Your task to perform on an android device: open app "TextNow: Call + Text Unlimited" (install if not already installed) Image 0: 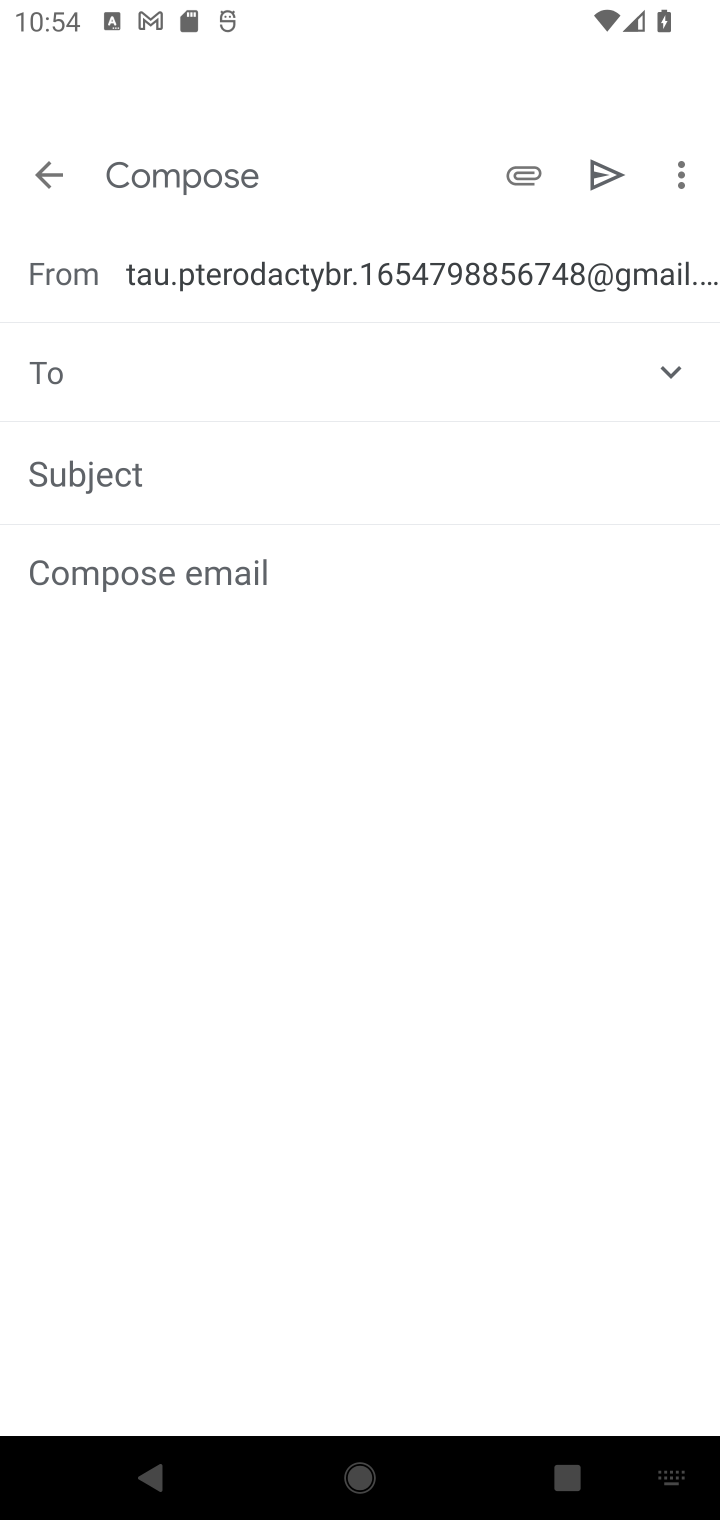
Step 0: press home button
Your task to perform on an android device: open app "TextNow: Call + Text Unlimited" (install if not already installed) Image 1: 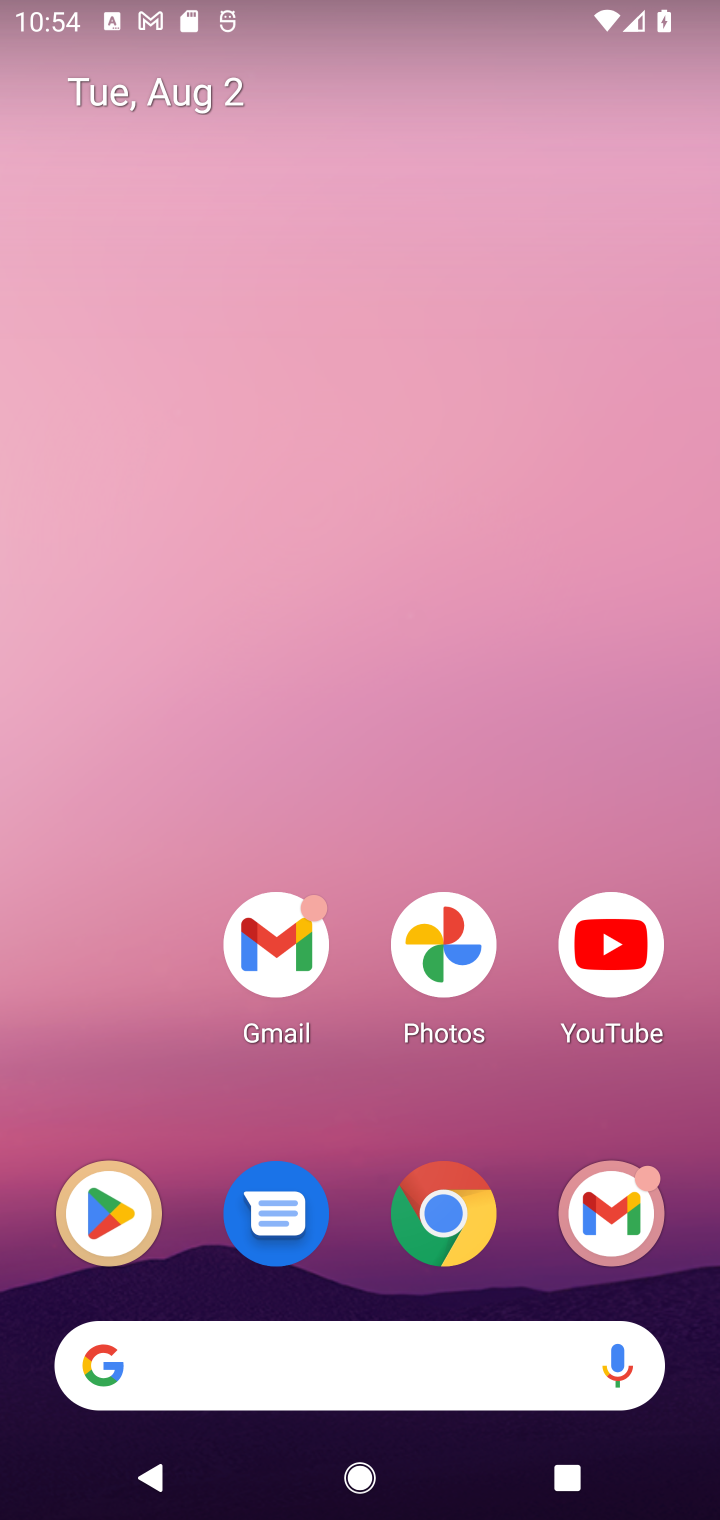
Step 1: click (110, 1221)
Your task to perform on an android device: open app "TextNow: Call + Text Unlimited" (install if not already installed) Image 2: 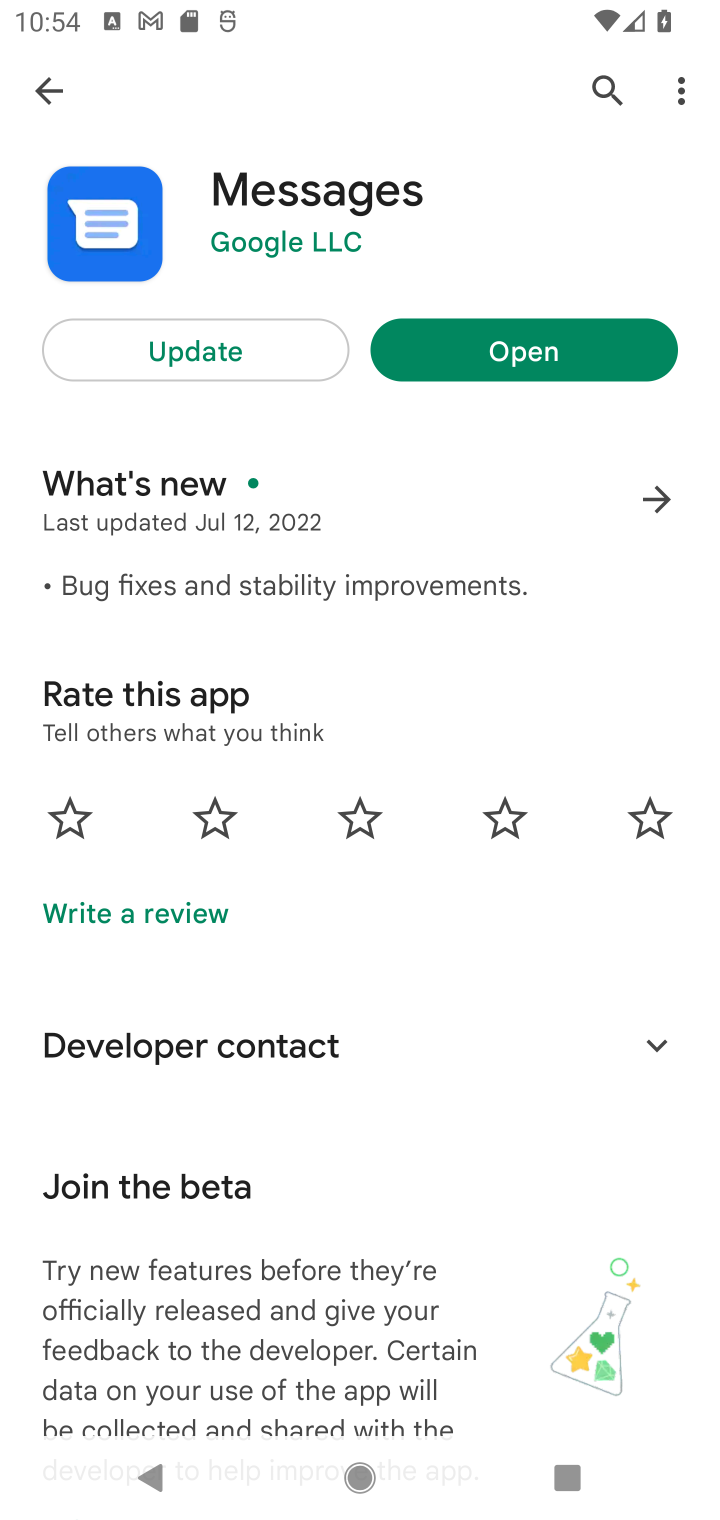
Step 2: click (35, 70)
Your task to perform on an android device: open app "TextNow: Call + Text Unlimited" (install if not already installed) Image 3: 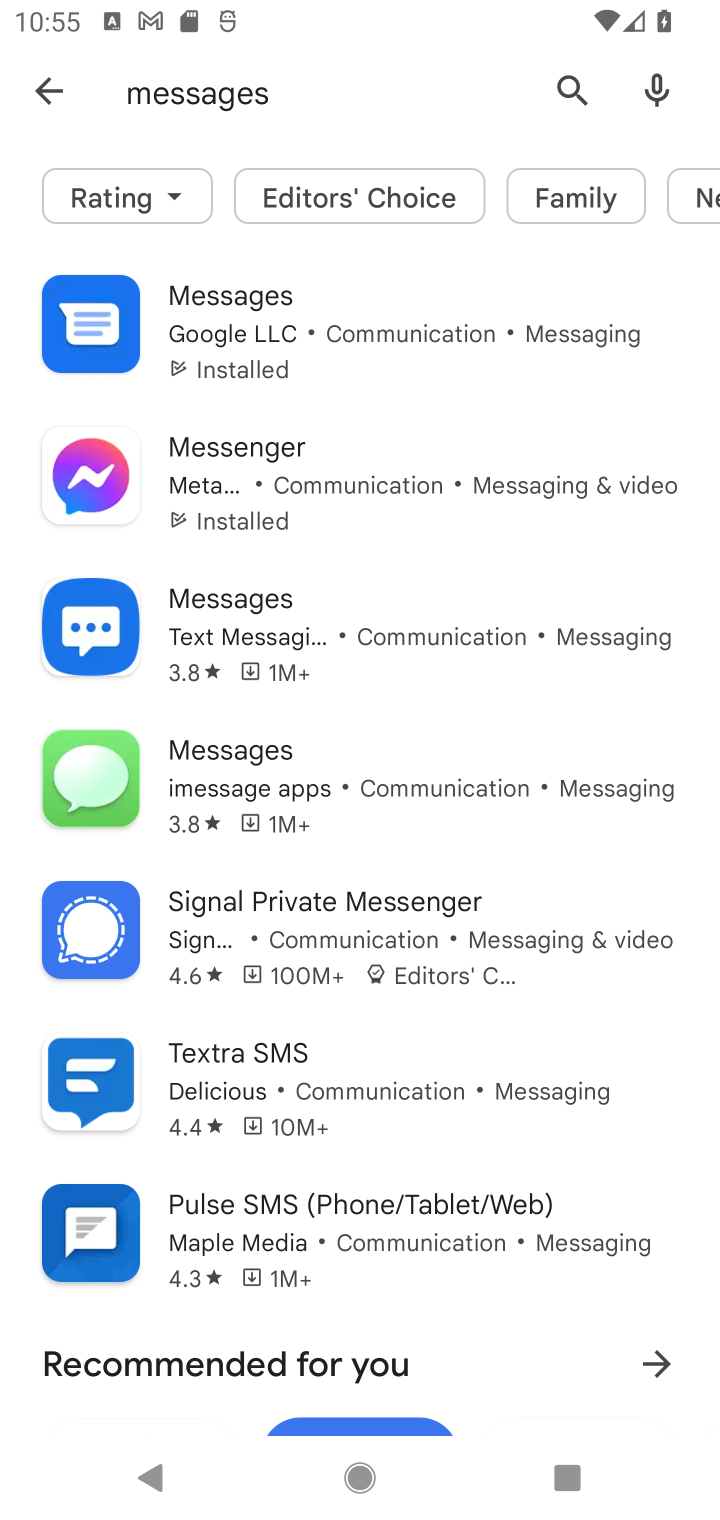
Step 3: click (38, 104)
Your task to perform on an android device: open app "TextNow: Call + Text Unlimited" (install if not already installed) Image 4: 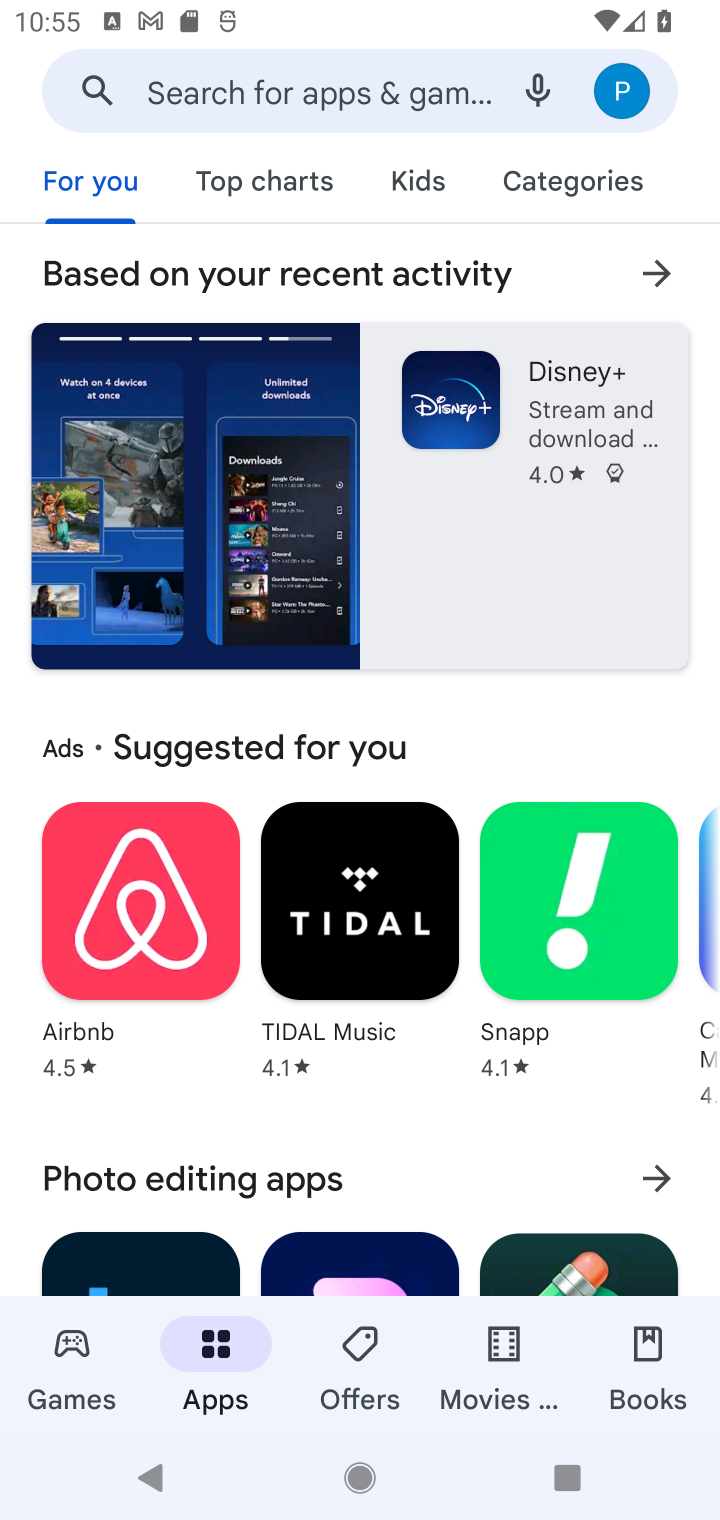
Step 4: click (331, 91)
Your task to perform on an android device: open app "TextNow: Call + Text Unlimited" (install if not already installed) Image 5: 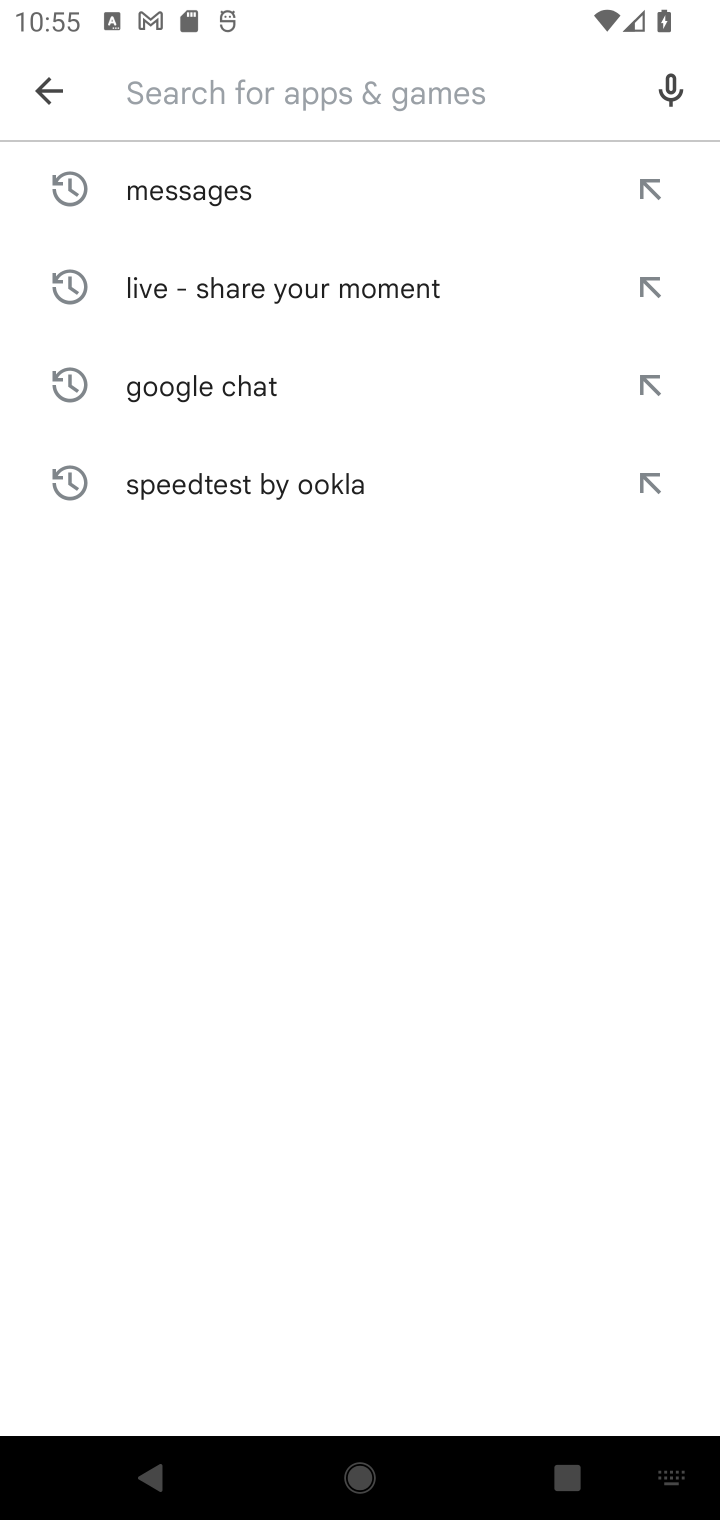
Step 5: type "TextNow: Call + Text Unlimited"
Your task to perform on an android device: open app "TextNow: Call + Text Unlimited" (install if not already installed) Image 6: 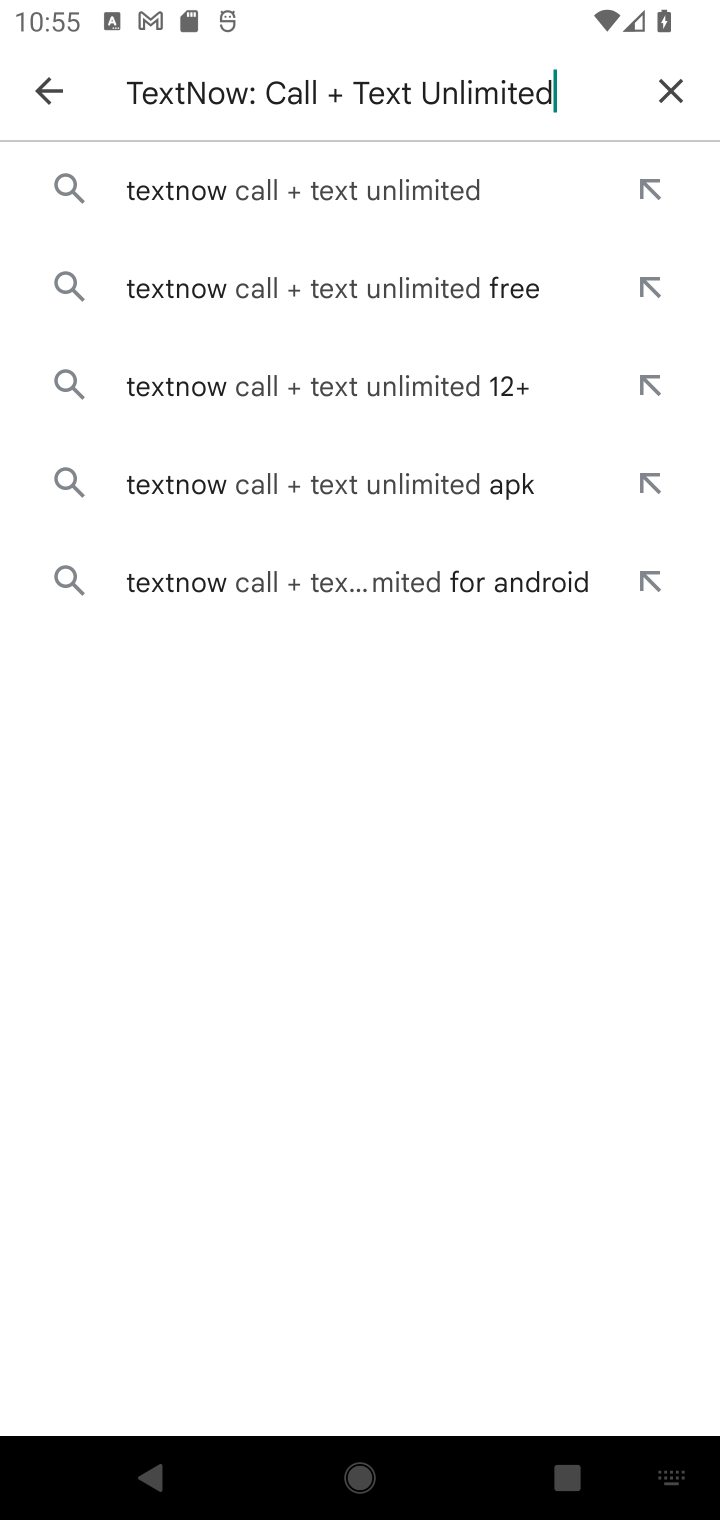
Step 6: click (327, 174)
Your task to perform on an android device: open app "TextNow: Call + Text Unlimited" (install if not already installed) Image 7: 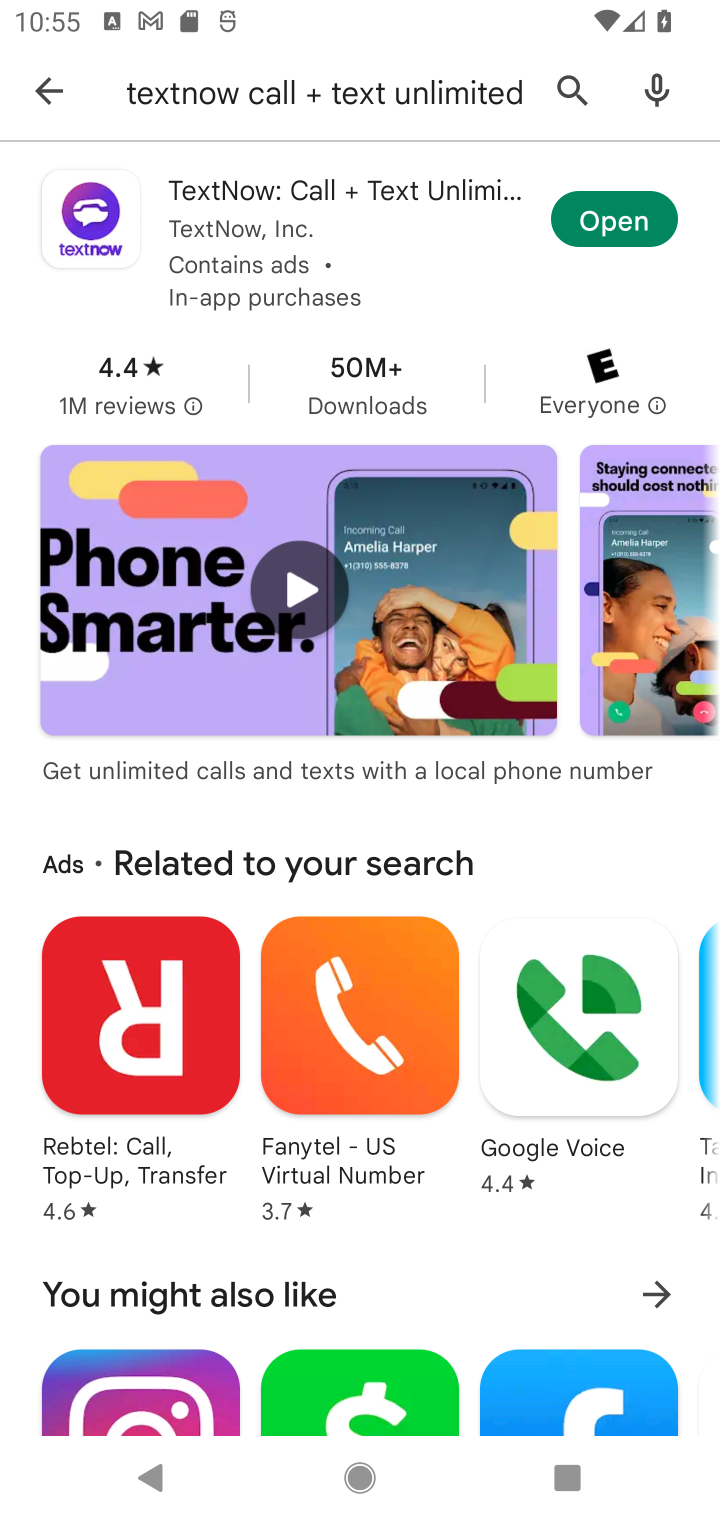
Step 7: click (616, 215)
Your task to perform on an android device: open app "TextNow: Call + Text Unlimited" (install if not already installed) Image 8: 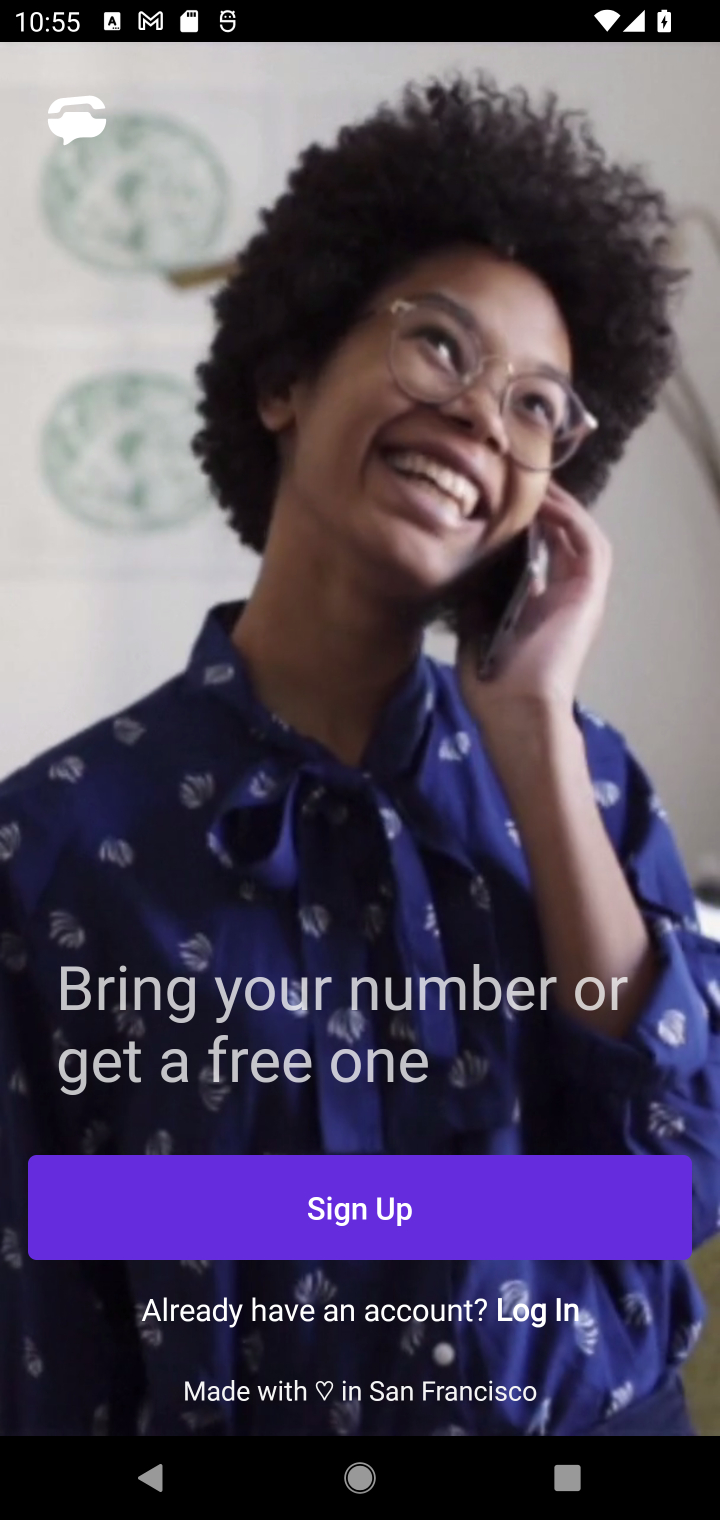
Step 8: task complete